Your task to perform on an android device: Open the calendar and show me this week's events? Image 0: 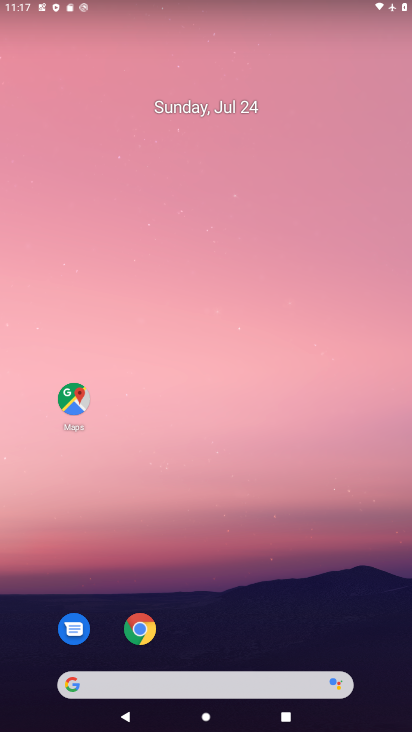
Step 0: task complete